Your task to perform on an android device: Open calendar and show me the second week of next month Image 0: 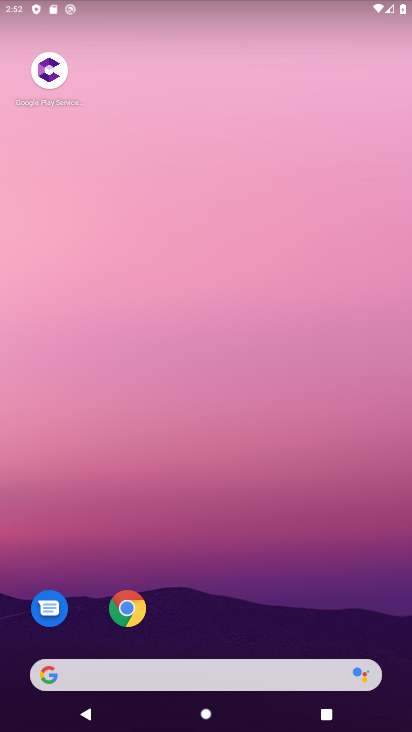
Step 0: drag from (273, 707) to (235, 7)
Your task to perform on an android device: Open calendar and show me the second week of next month Image 1: 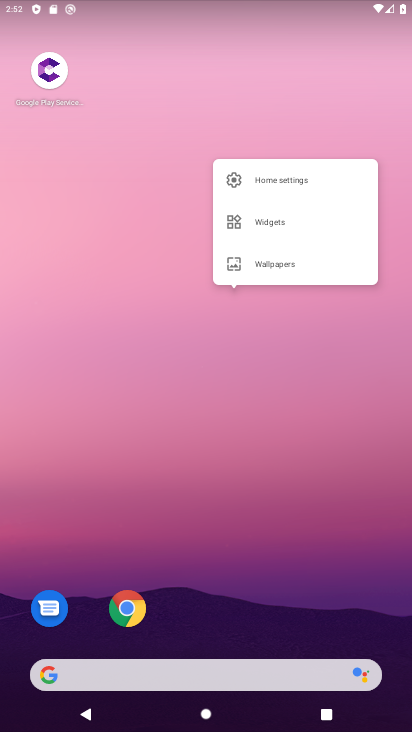
Step 1: drag from (243, 704) to (309, 323)
Your task to perform on an android device: Open calendar and show me the second week of next month Image 2: 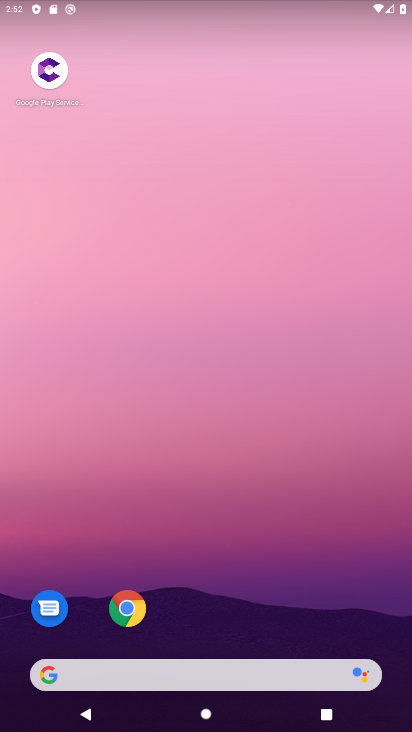
Step 2: drag from (243, 717) to (309, 283)
Your task to perform on an android device: Open calendar and show me the second week of next month Image 3: 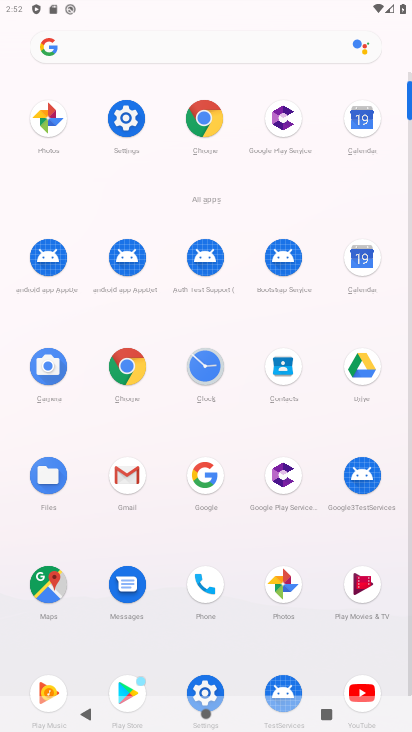
Step 3: click (366, 255)
Your task to perform on an android device: Open calendar and show me the second week of next month Image 4: 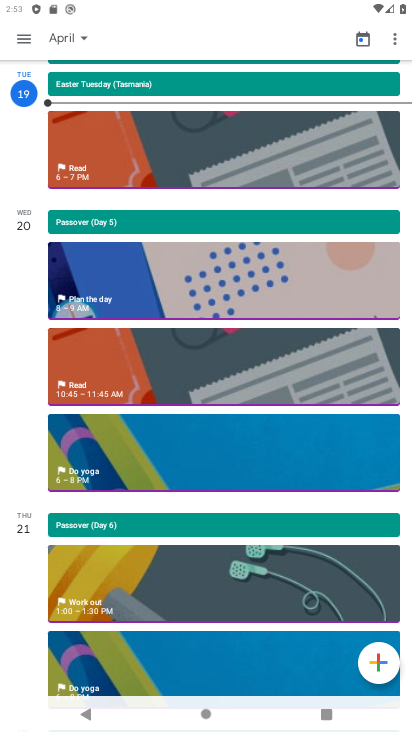
Step 4: drag from (240, 655) to (294, 209)
Your task to perform on an android device: Open calendar and show me the second week of next month Image 5: 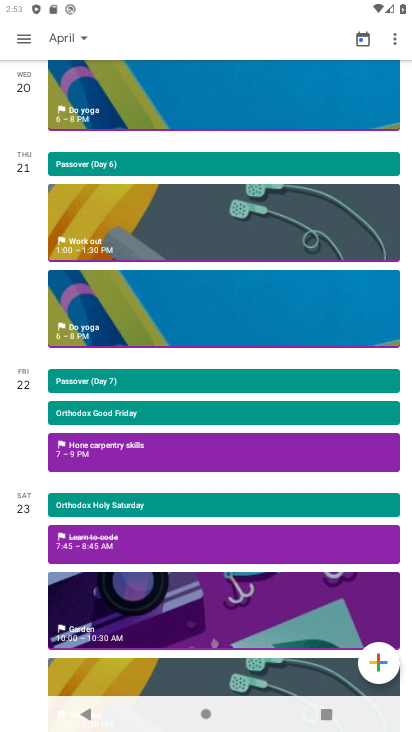
Step 5: drag from (195, 621) to (217, 290)
Your task to perform on an android device: Open calendar and show me the second week of next month Image 6: 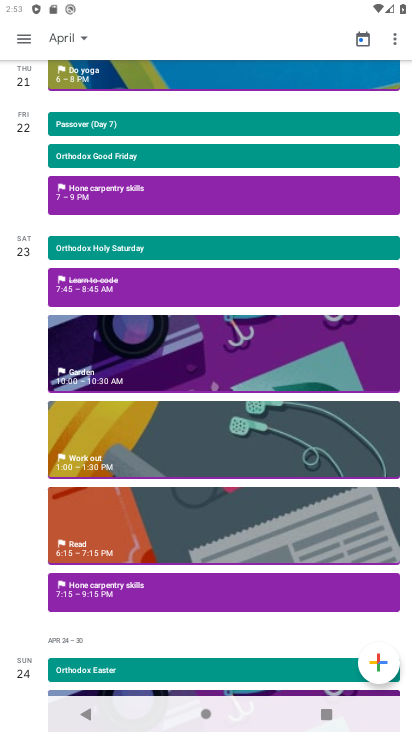
Step 6: click (83, 40)
Your task to perform on an android device: Open calendar and show me the second week of next month Image 7: 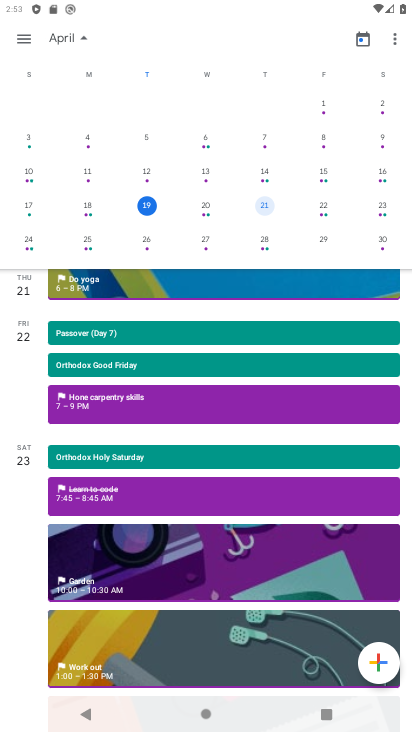
Step 7: task complete